Your task to perform on an android device: change the clock display to digital Image 0: 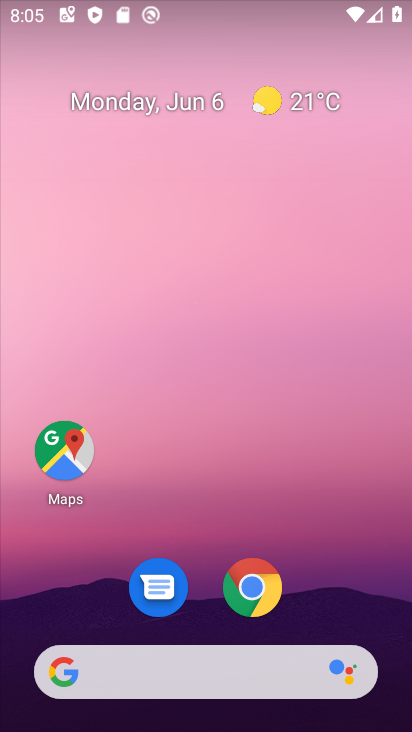
Step 0: drag from (225, 721) to (192, 21)
Your task to perform on an android device: change the clock display to digital Image 1: 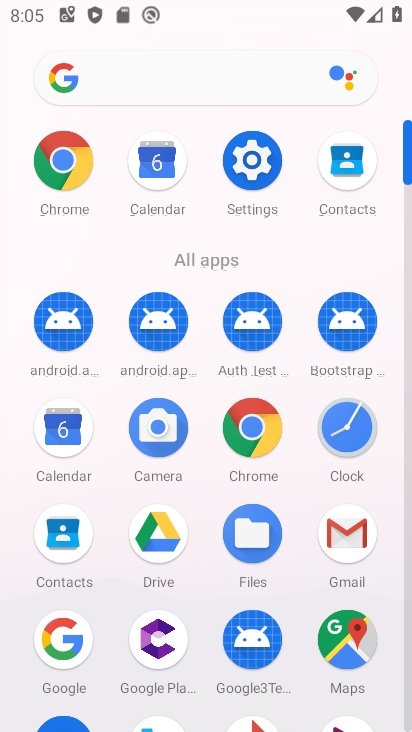
Step 1: click (336, 427)
Your task to perform on an android device: change the clock display to digital Image 2: 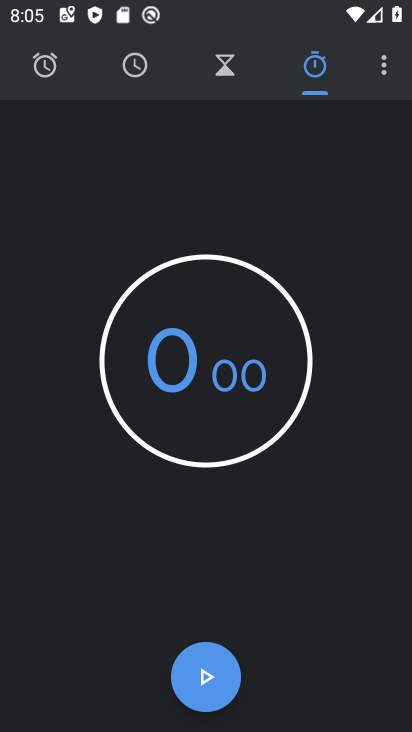
Step 2: click (382, 67)
Your task to perform on an android device: change the clock display to digital Image 3: 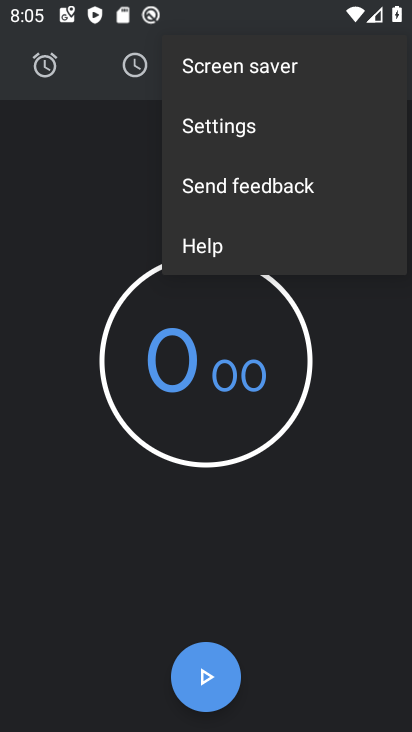
Step 3: click (231, 129)
Your task to perform on an android device: change the clock display to digital Image 4: 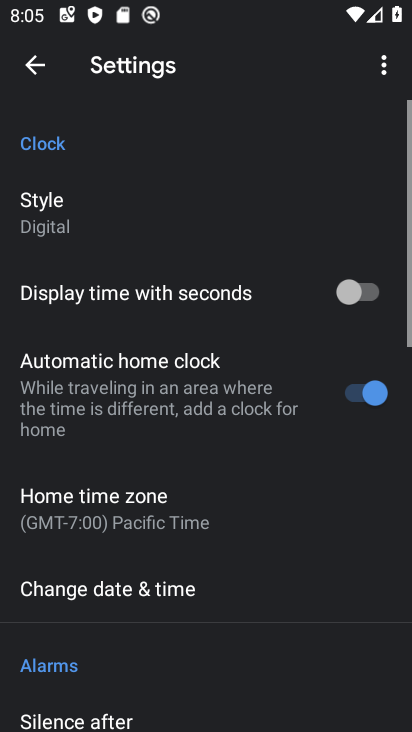
Step 4: click (69, 217)
Your task to perform on an android device: change the clock display to digital Image 5: 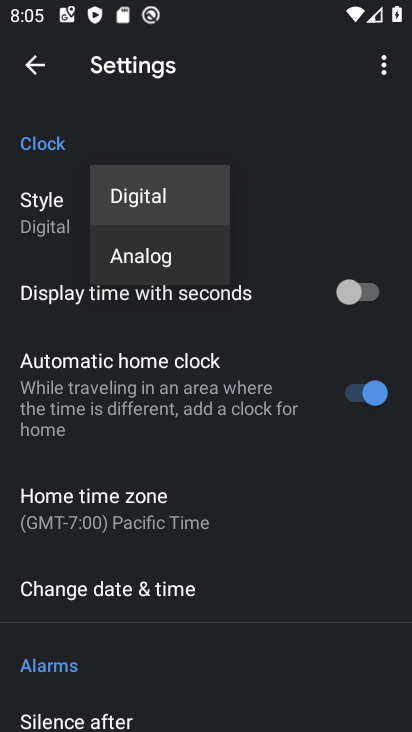
Step 5: task complete